Your task to perform on an android device: See recent photos Image 0: 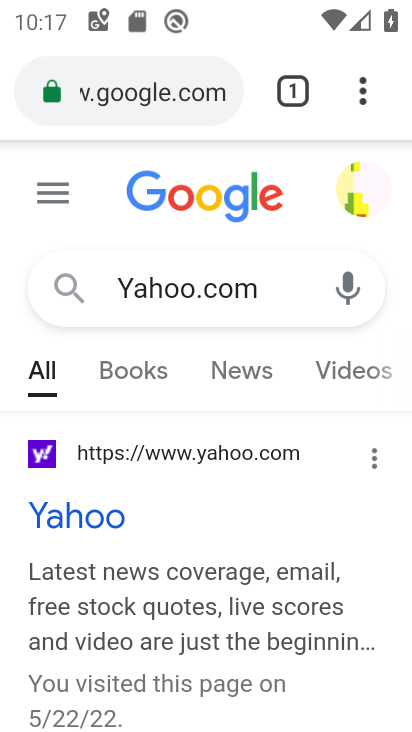
Step 0: press home button
Your task to perform on an android device: See recent photos Image 1: 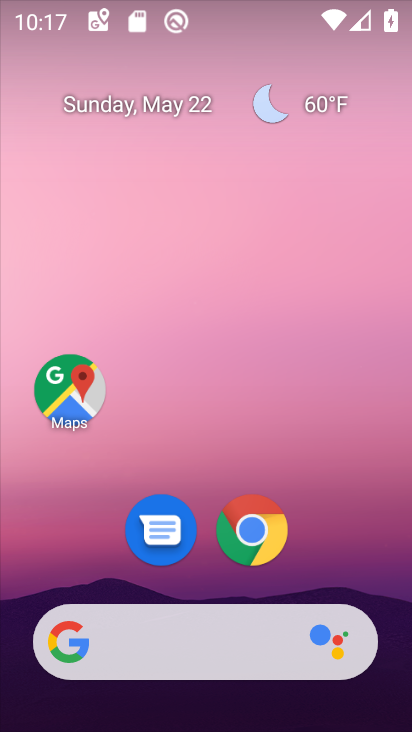
Step 1: drag from (392, 458) to (365, 167)
Your task to perform on an android device: See recent photos Image 2: 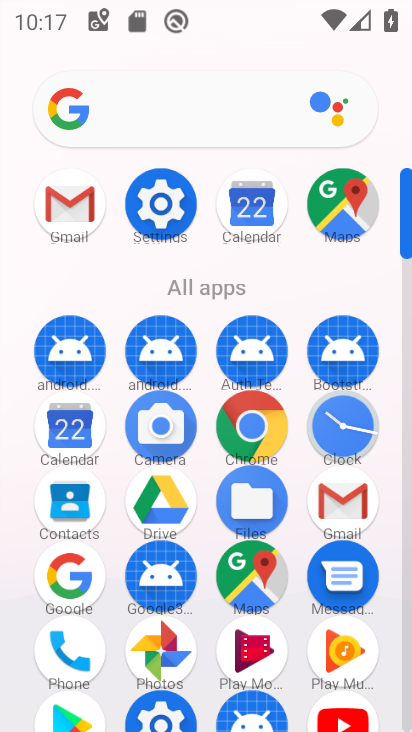
Step 2: click (155, 633)
Your task to perform on an android device: See recent photos Image 3: 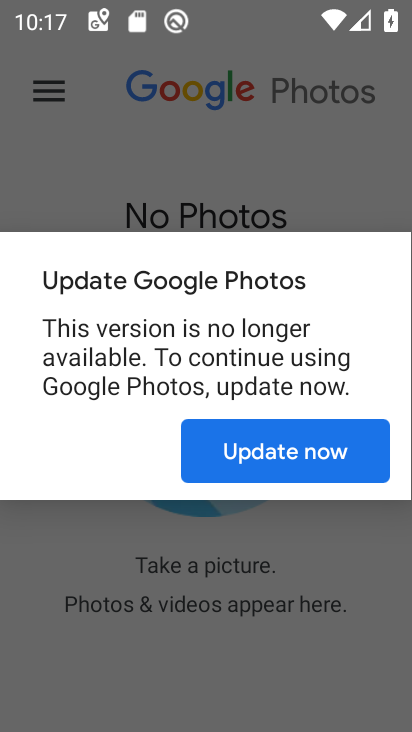
Step 3: click (339, 452)
Your task to perform on an android device: See recent photos Image 4: 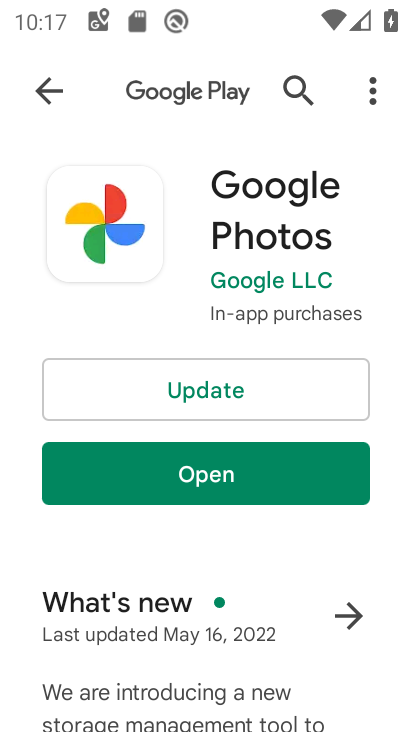
Step 4: click (268, 394)
Your task to perform on an android device: See recent photos Image 5: 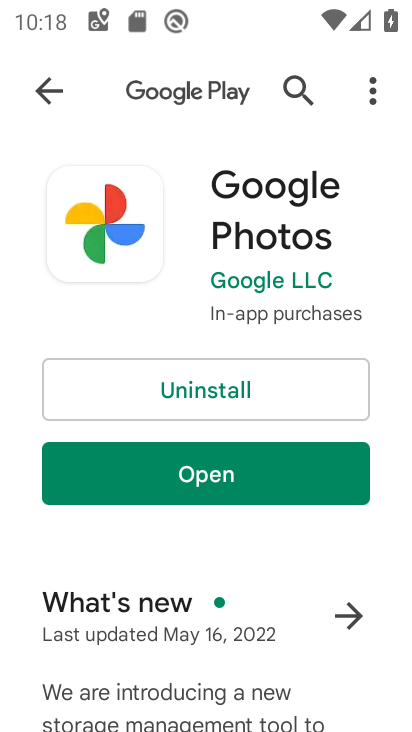
Step 5: click (300, 477)
Your task to perform on an android device: See recent photos Image 6: 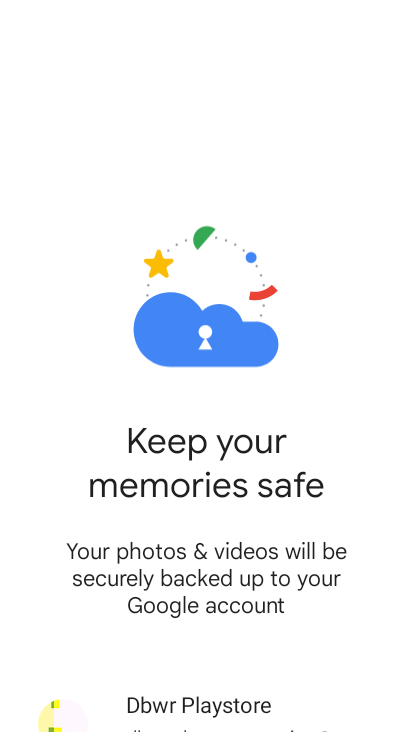
Step 6: task complete